Your task to perform on an android device: set default search engine in the chrome app Image 0: 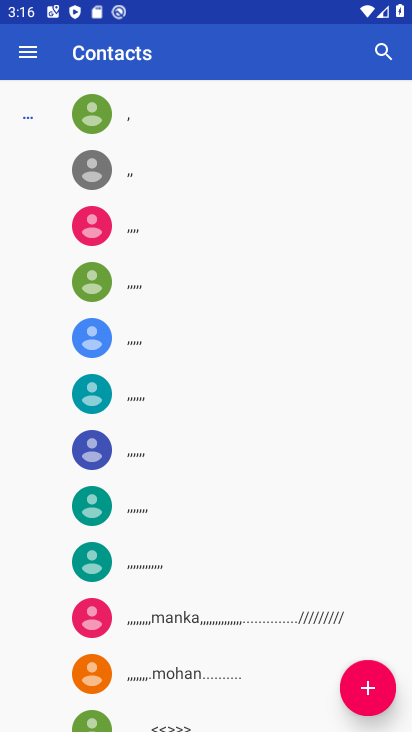
Step 0: press home button
Your task to perform on an android device: set default search engine in the chrome app Image 1: 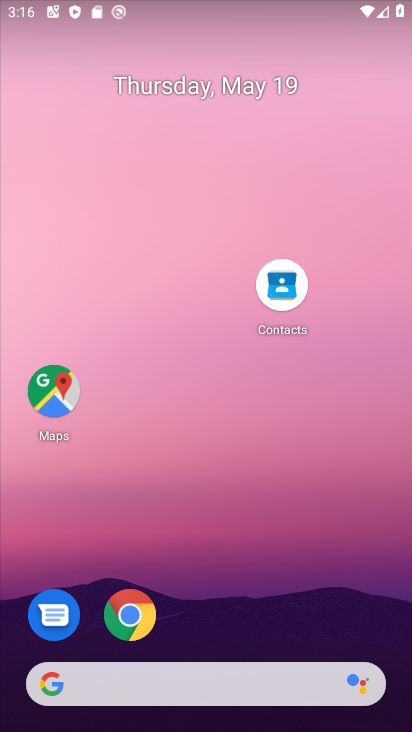
Step 1: drag from (208, 668) to (223, 130)
Your task to perform on an android device: set default search engine in the chrome app Image 2: 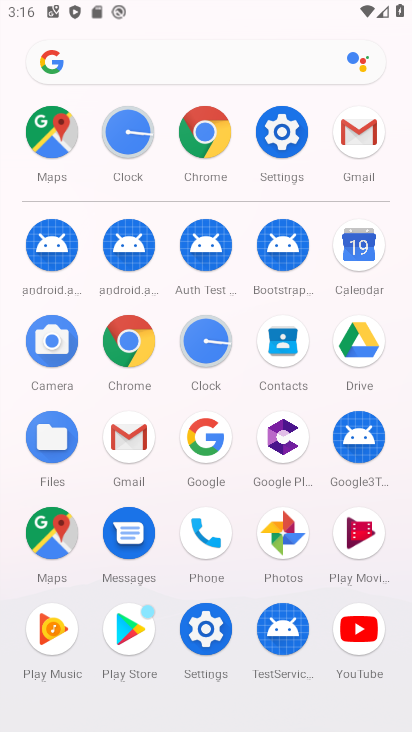
Step 2: click (202, 168)
Your task to perform on an android device: set default search engine in the chrome app Image 3: 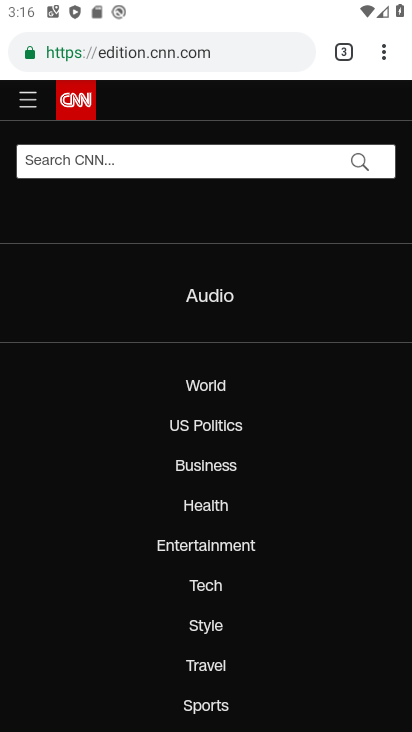
Step 3: click (385, 58)
Your task to perform on an android device: set default search engine in the chrome app Image 4: 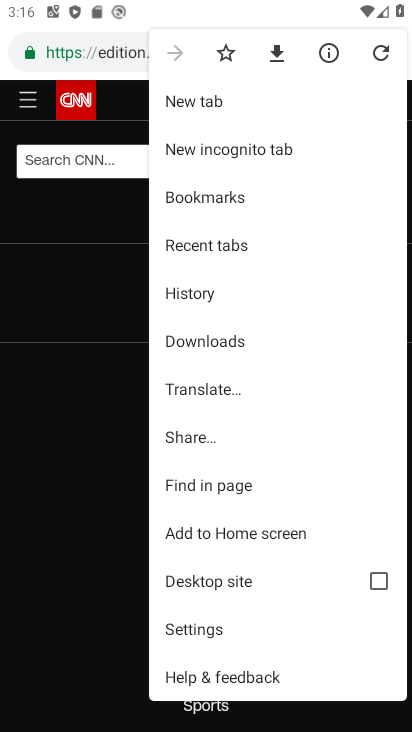
Step 4: click (243, 639)
Your task to perform on an android device: set default search engine in the chrome app Image 5: 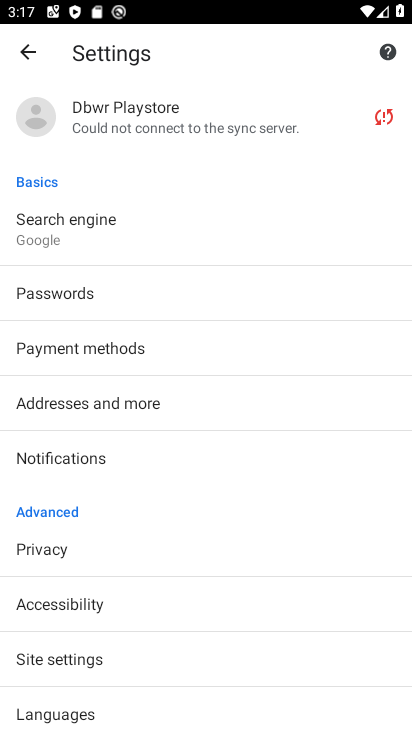
Step 5: drag from (179, 568) to (206, 468)
Your task to perform on an android device: set default search engine in the chrome app Image 6: 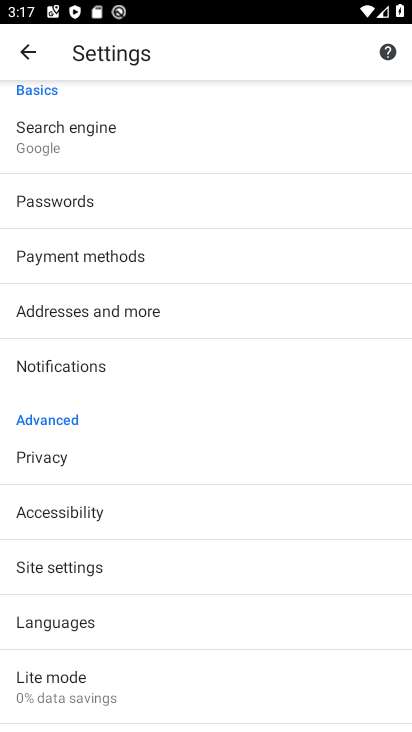
Step 6: drag from (176, 264) to (122, 530)
Your task to perform on an android device: set default search engine in the chrome app Image 7: 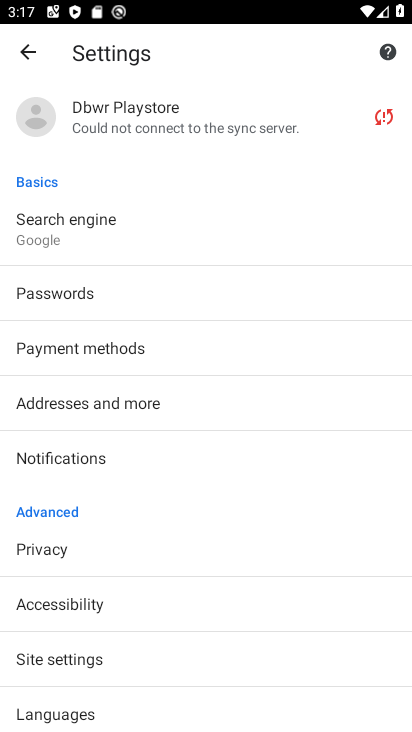
Step 7: click (90, 234)
Your task to perform on an android device: set default search engine in the chrome app Image 8: 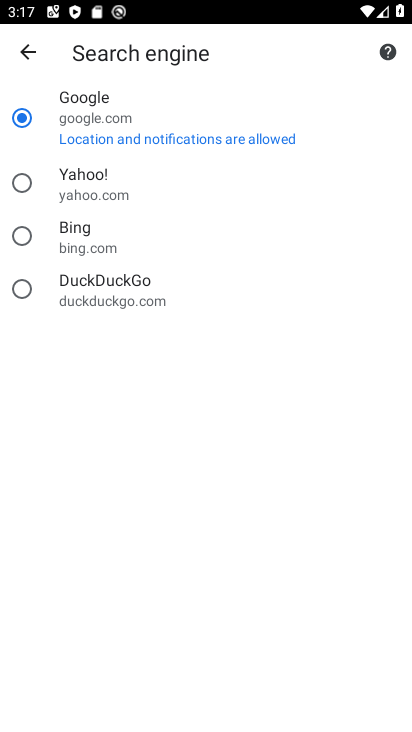
Step 8: task complete